Your task to perform on an android device: toggle sleep mode Image 0: 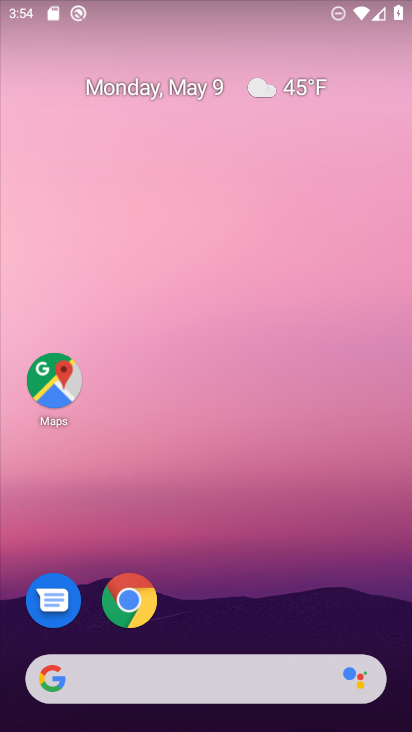
Step 0: drag from (327, 501) to (236, 32)
Your task to perform on an android device: toggle sleep mode Image 1: 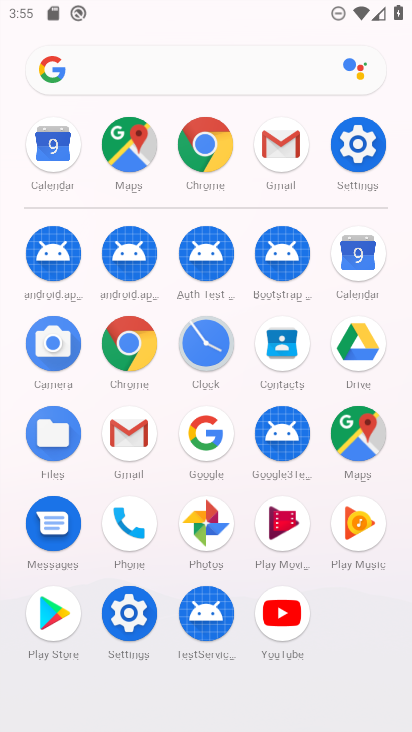
Step 1: click (356, 142)
Your task to perform on an android device: toggle sleep mode Image 2: 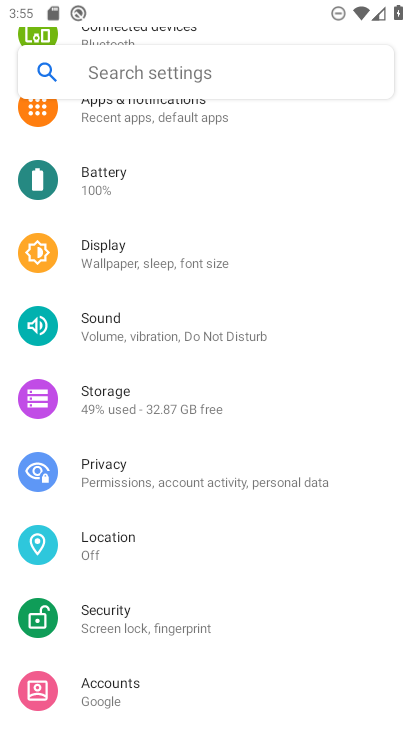
Step 2: drag from (274, 558) to (319, 170)
Your task to perform on an android device: toggle sleep mode Image 3: 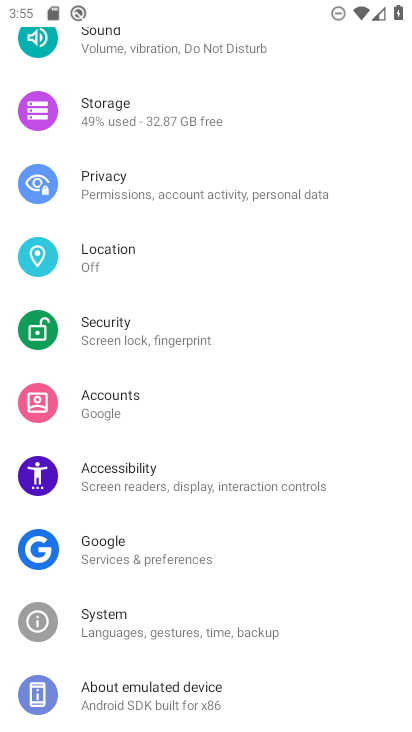
Step 3: drag from (296, 544) to (309, 66)
Your task to perform on an android device: toggle sleep mode Image 4: 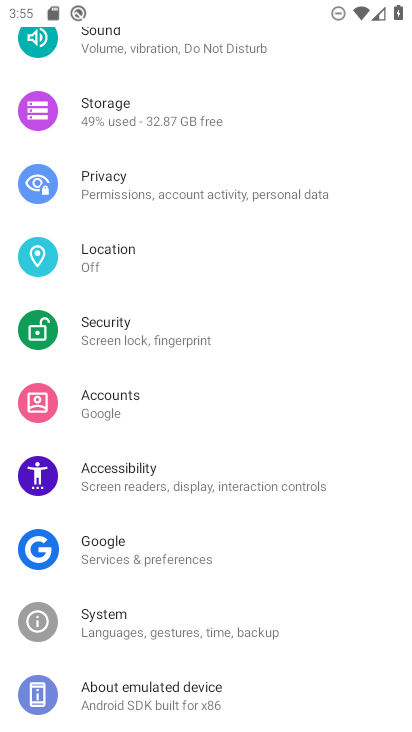
Step 4: drag from (258, 614) to (257, 114)
Your task to perform on an android device: toggle sleep mode Image 5: 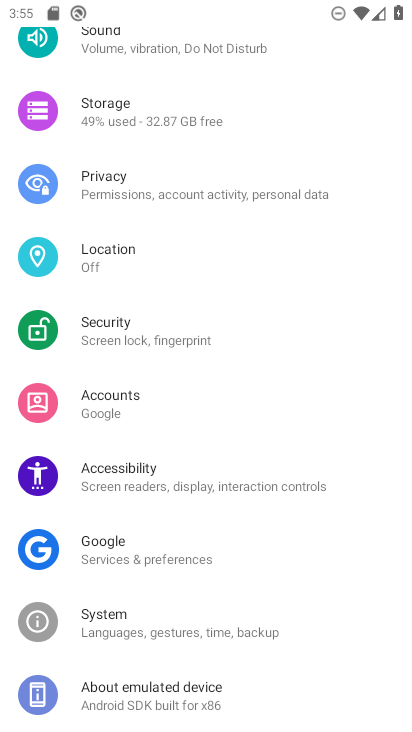
Step 5: drag from (247, 155) to (251, 524)
Your task to perform on an android device: toggle sleep mode Image 6: 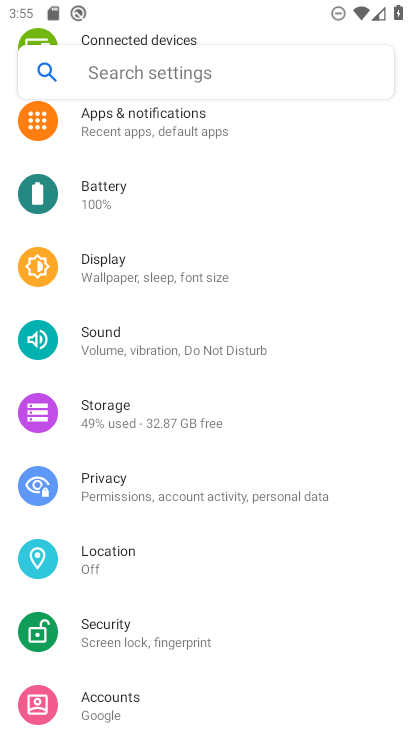
Step 6: drag from (278, 217) to (282, 590)
Your task to perform on an android device: toggle sleep mode Image 7: 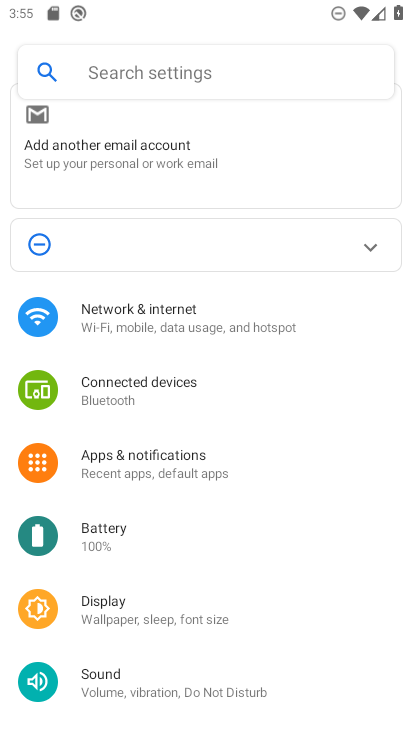
Step 7: drag from (301, 471) to (317, 88)
Your task to perform on an android device: toggle sleep mode Image 8: 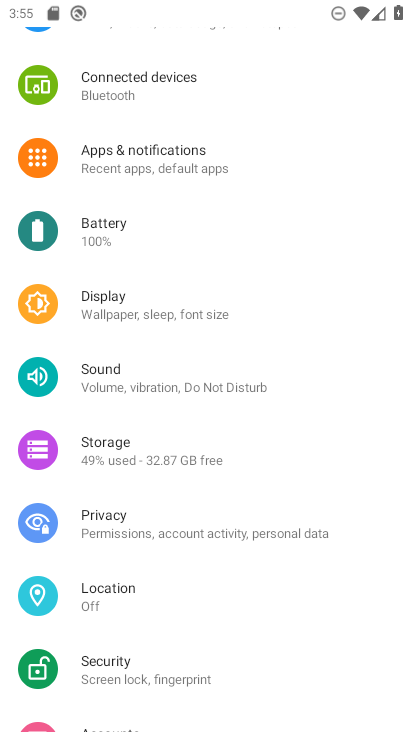
Step 8: drag from (237, 441) to (271, 111)
Your task to perform on an android device: toggle sleep mode Image 9: 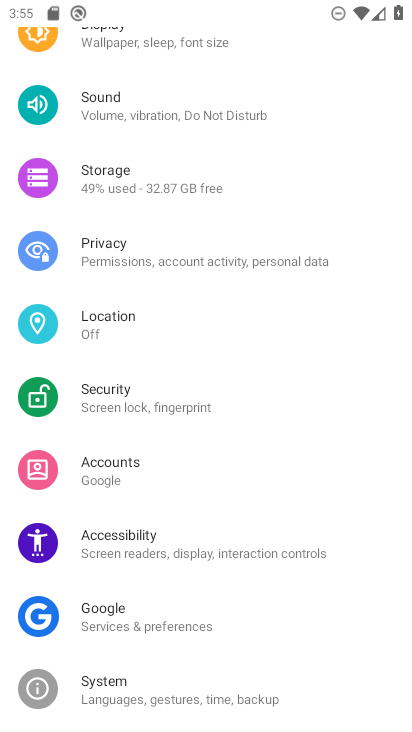
Step 9: drag from (247, 472) to (298, 134)
Your task to perform on an android device: toggle sleep mode Image 10: 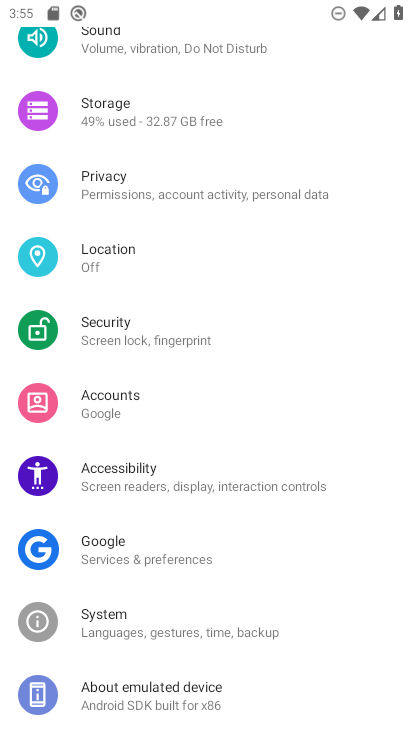
Step 10: drag from (287, 305) to (285, 81)
Your task to perform on an android device: toggle sleep mode Image 11: 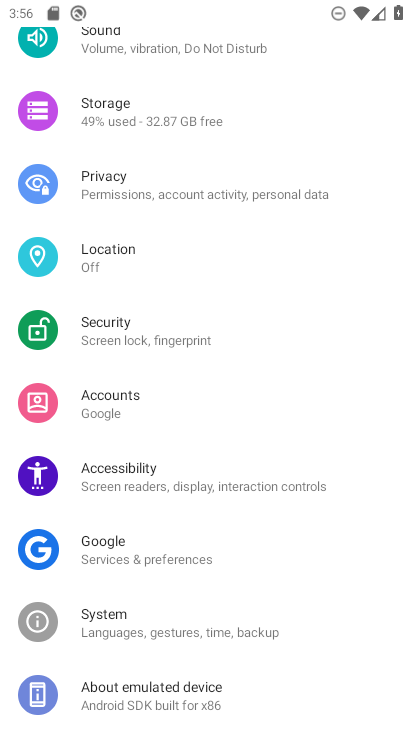
Step 11: drag from (265, 438) to (256, 132)
Your task to perform on an android device: toggle sleep mode Image 12: 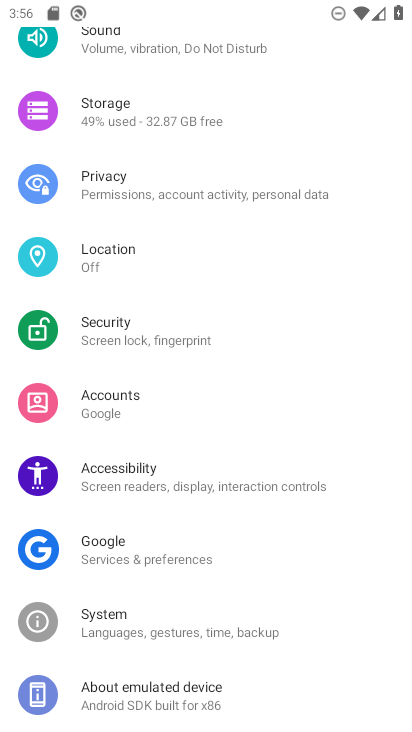
Step 12: drag from (221, 466) to (275, 97)
Your task to perform on an android device: toggle sleep mode Image 13: 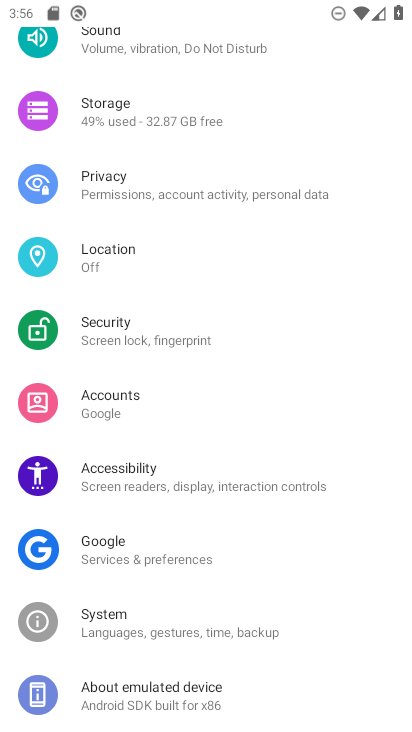
Step 13: drag from (305, 427) to (294, 81)
Your task to perform on an android device: toggle sleep mode Image 14: 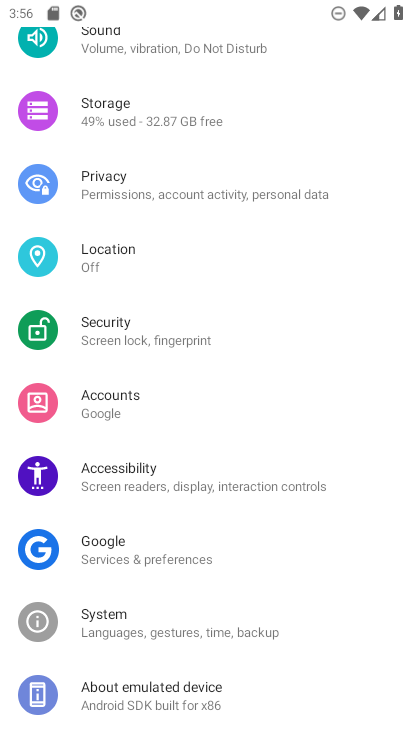
Step 14: drag from (193, 118) to (201, 398)
Your task to perform on an android device: toggle sleep mode Image 15: 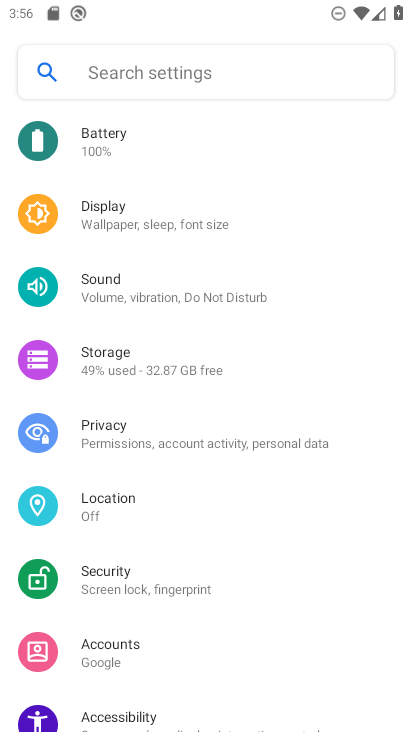
Step 15: click (204, 216)
Your task to perform on an android device: toggle sleep mode Image 16: 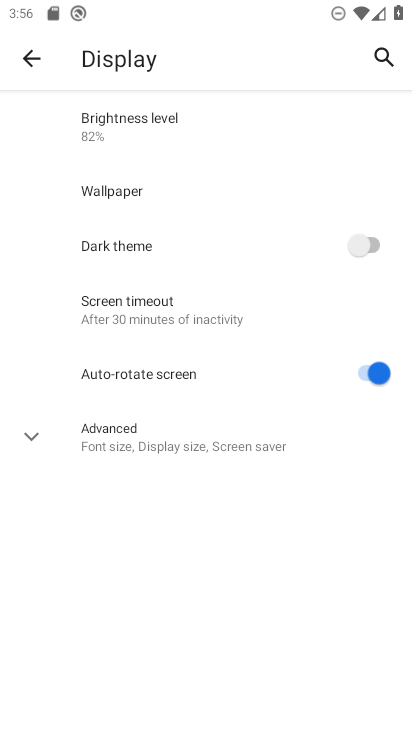
Step 16: click (21, 442)
Your task to perform on an android device: toggle sleep mode Image 17: 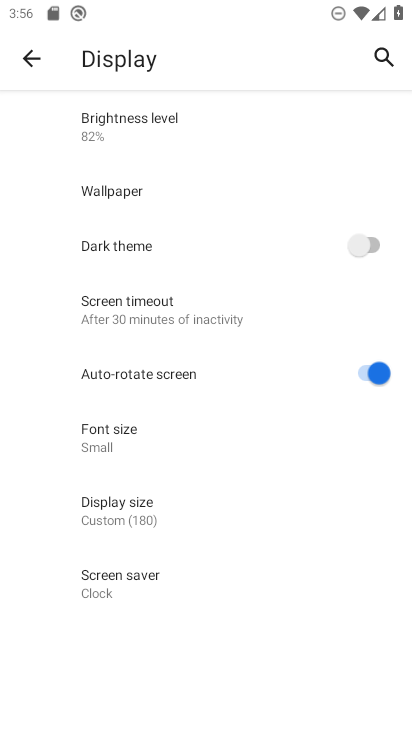
Step 17: task complete